Your task to perform on an android device: turn on the 24-hour format for clock Image 0: 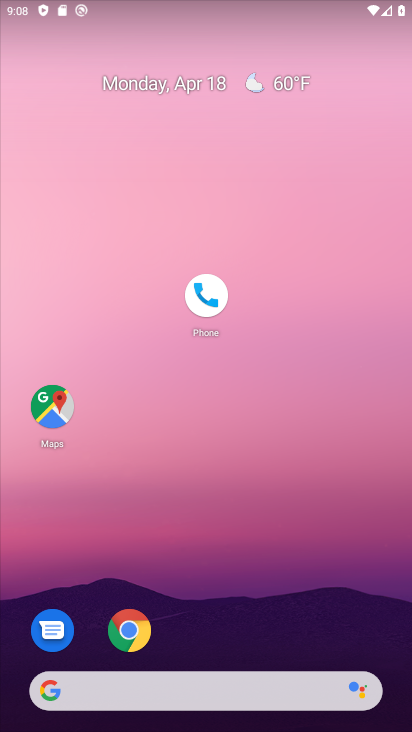
Step 0: drag from (297, 592) to (278, 76)
Your task to perform on an android device: turn on the 24-hour format for clock Image 1: 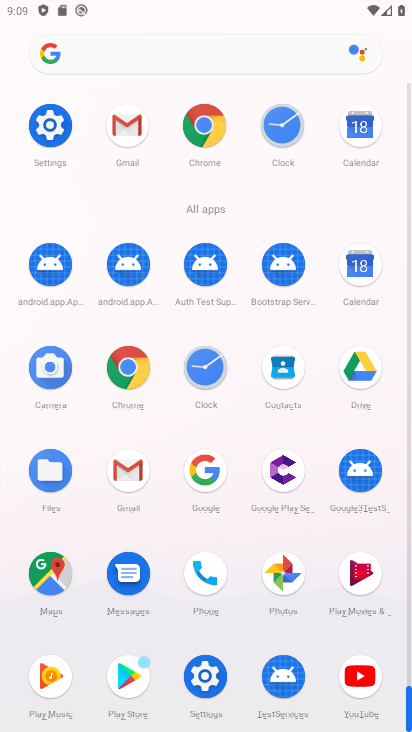
Step 1: click (207, 366)
Your task to perform on an android device: turn on the 24-hour format for clock Image 2: 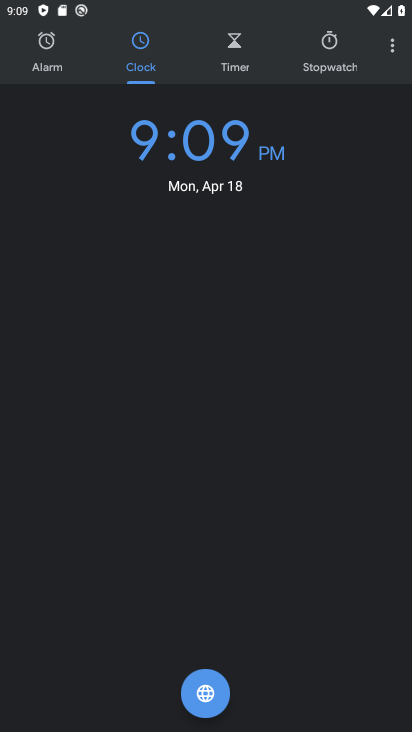
Step 2: click (392, 48)
Your task to perform on an android device: turn on the 24-hour format for clock Image 3: 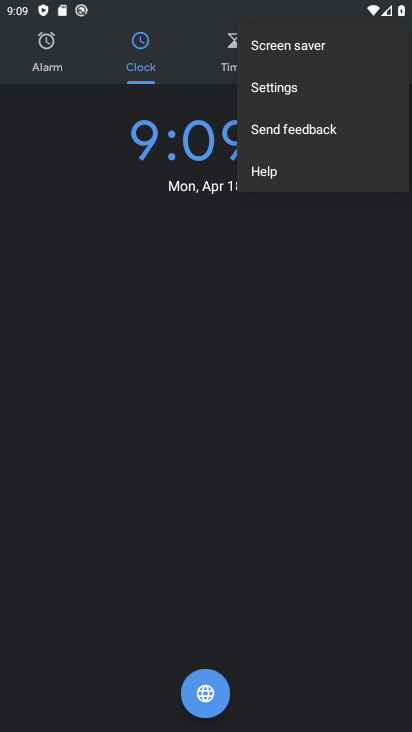
Step 3: click (283, 97)
Your task to perform on an android device: turn on the 24-hour format for clock Image 4: 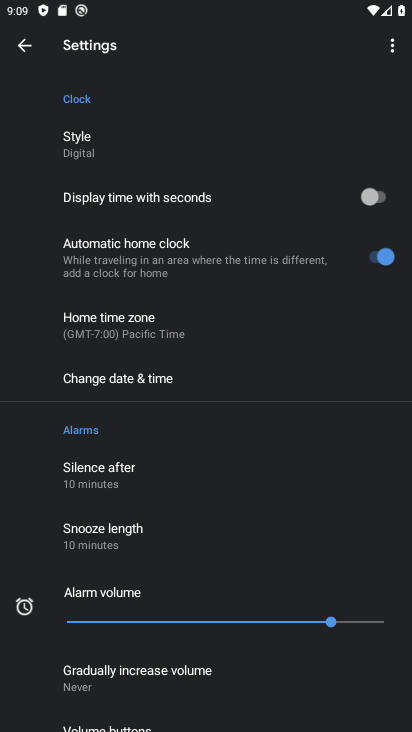
Step 4: click (145, 380)
Your task to perform on an android device: turn on the 24-hour format for clock Image 5: 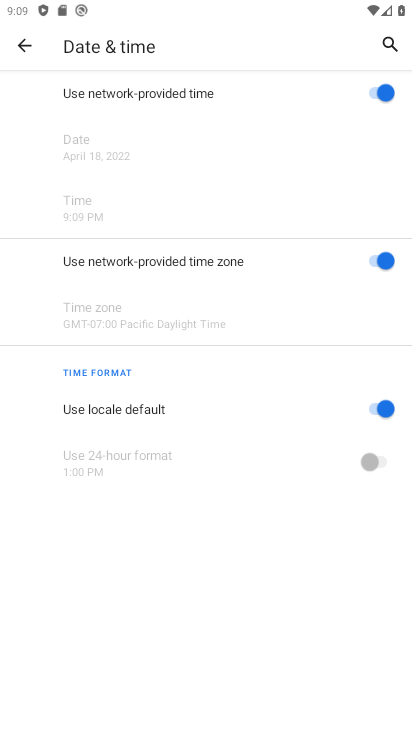
Step 5: click (384, 406)
Your task to perform on an android device: turn on the 24-hour format for clock Image 6: 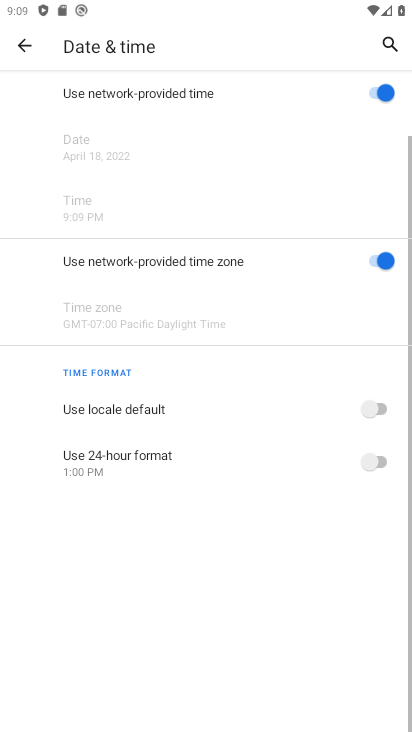
Step 6: click (388, 461)
Your task to perform on an android device: turn on the 24-hour format for clock Image 7: 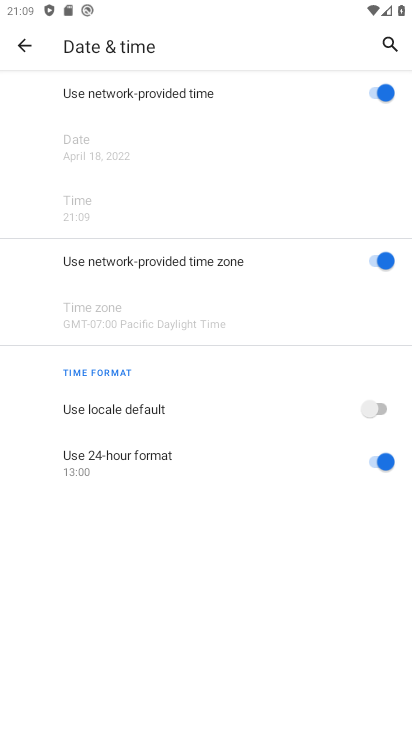
Step 7: task complete